Your task to perform on an android device: Search for macbook pro 15 inch on newegg.com, select the first entry, and add it to the cart. Image 0: 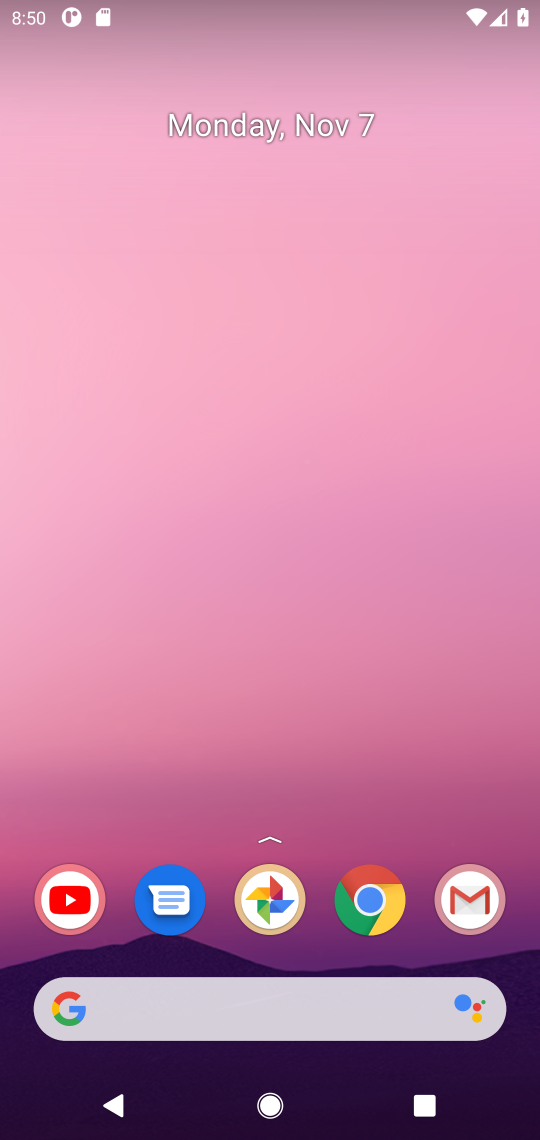
Step 0: drag from (295, 929) to (321, 280)
Your task to perform on an android device: Search for macbook pro 15 inch on newegg.com, select the first entry, and add it to the cart. Image 1: 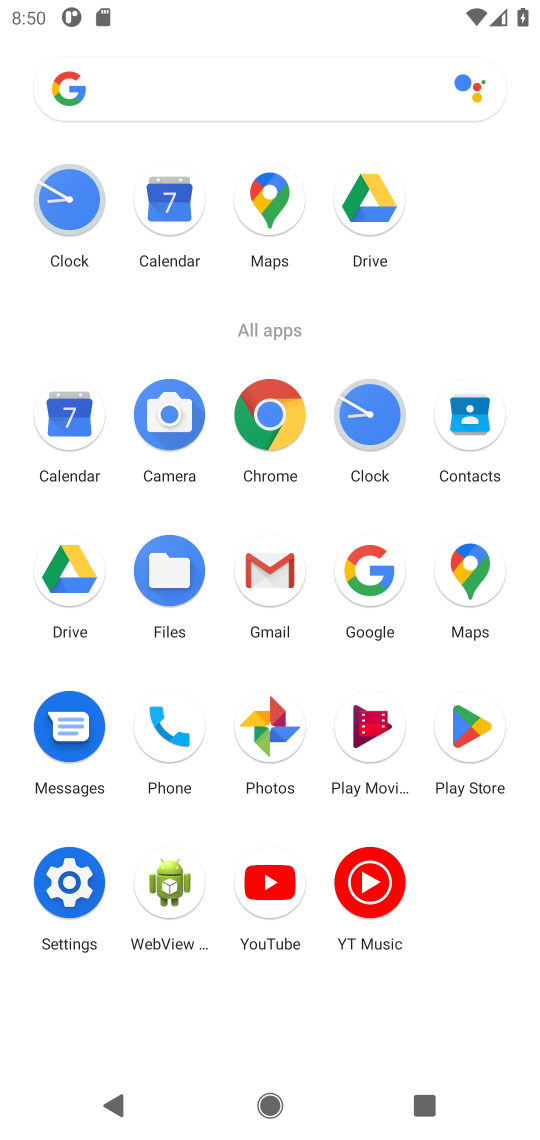
Step 1: click (392, 551)
Your task to perform on an android device: Search for macbook pro 15 inch on newegg.com, select the first entry, and add it to the cart. Image 2: 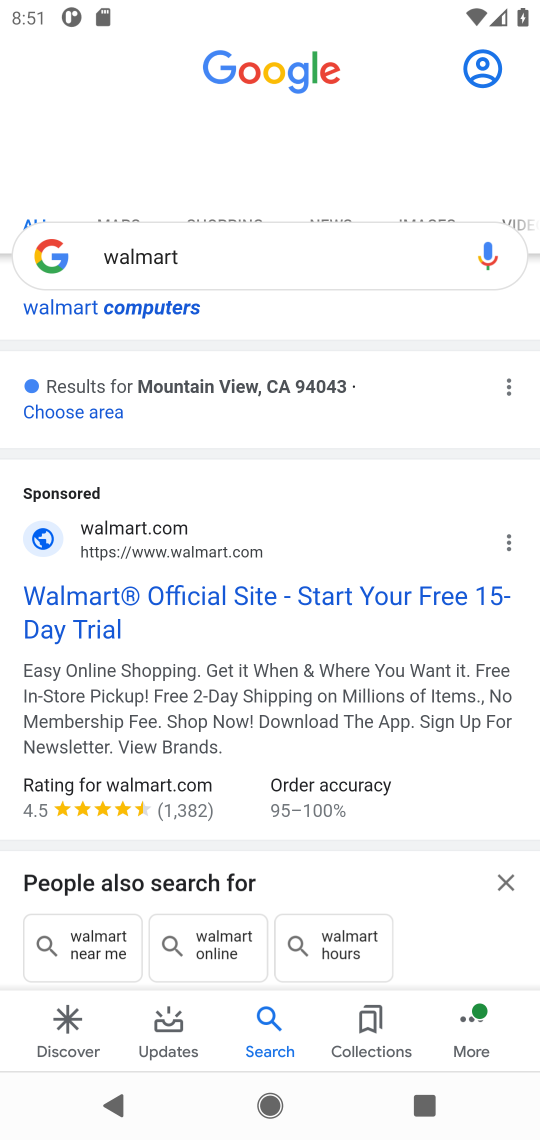
Step 2: click (336, 255)
Your task to perform on an android device: Search for macbook pro 15 inch on newegg.com, select the first entry, and add it to the cart. Image 3: 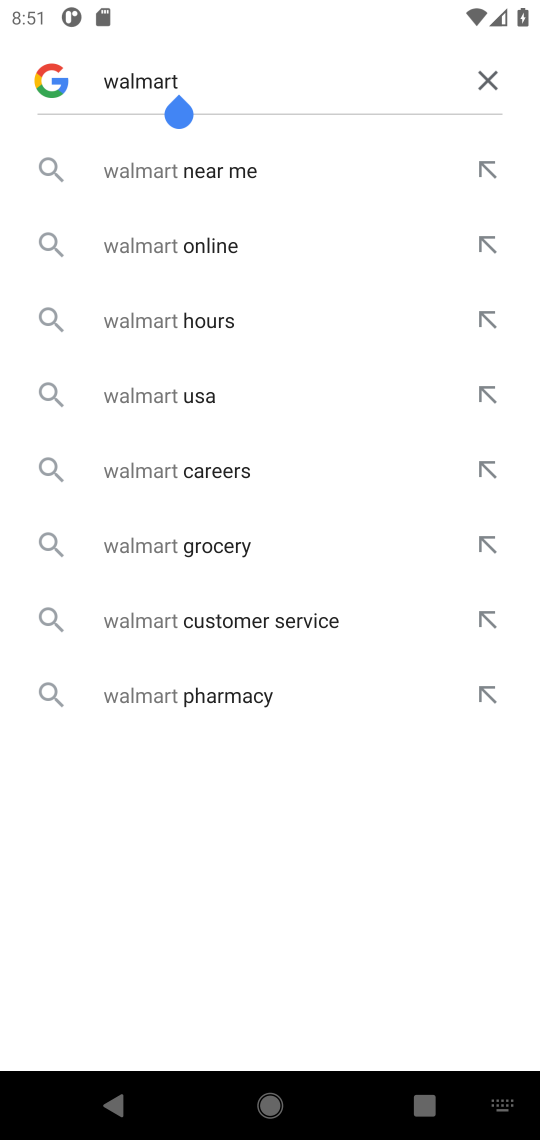
Step 3: click (484, 89)
Your task to perform on an android device: Search for macbook pro 15 inch on newegg.com, select the first entry, and add it to the cart. Image 4: 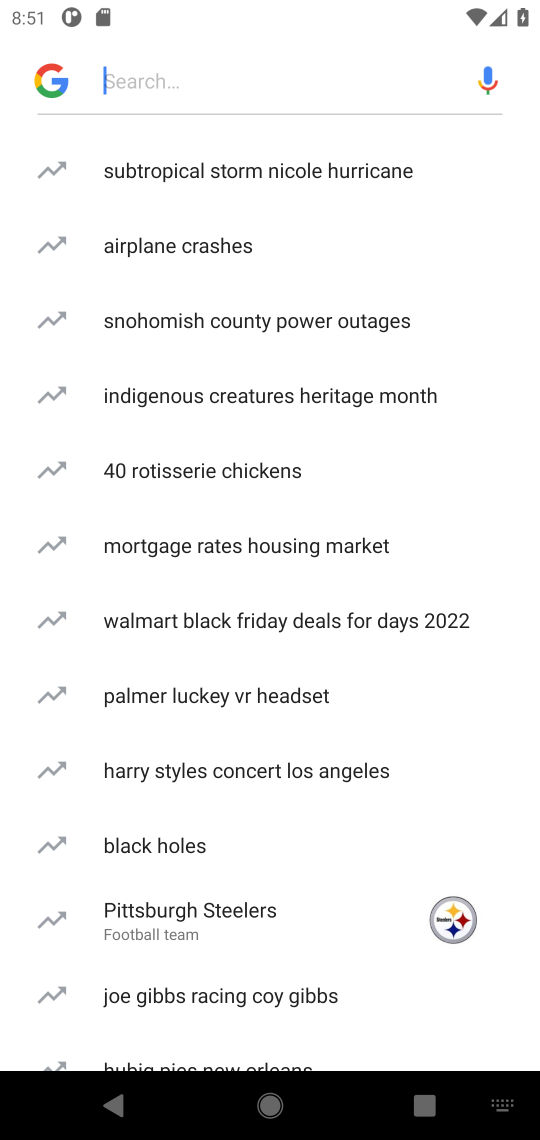
Step 4: type "newegg.com"
Your task to perform on an android device: Search for macbook pro 15 inch on newegg.com, select the first entry, and add it to the cart. Image 5: 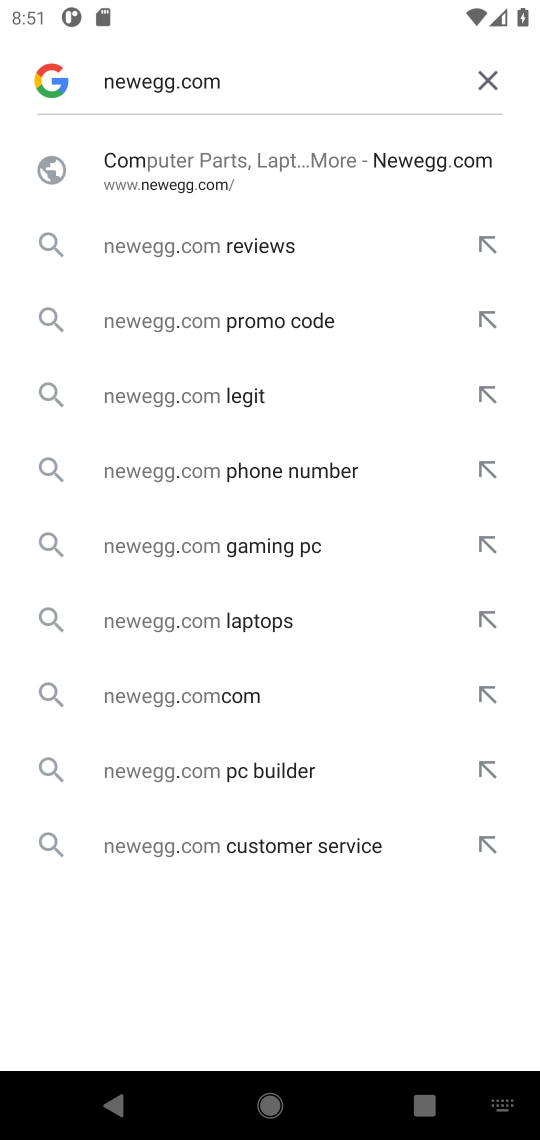
Step 5: click (302, 160)
Your task to perform on an android device: Search for macbook pro 15 inch on newegg.com, select the first entry, and add it to the cart. Image 6: 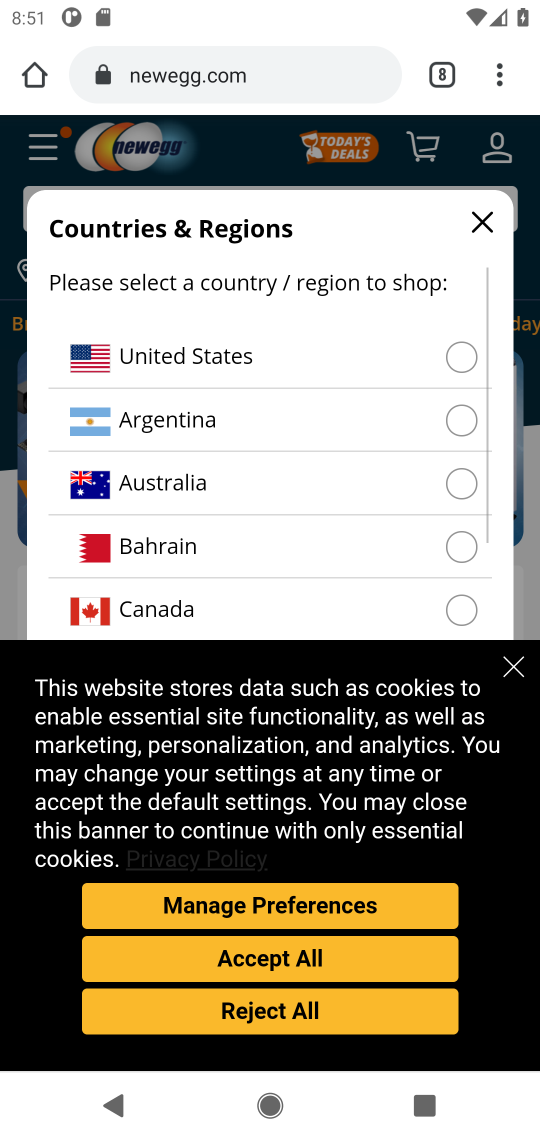
Step 6: click (484, 226)
Your task to perform on an android device: Search for macbook pro 15 inch on newegg.com, select the first entry, and add it to the cart. Image 7: 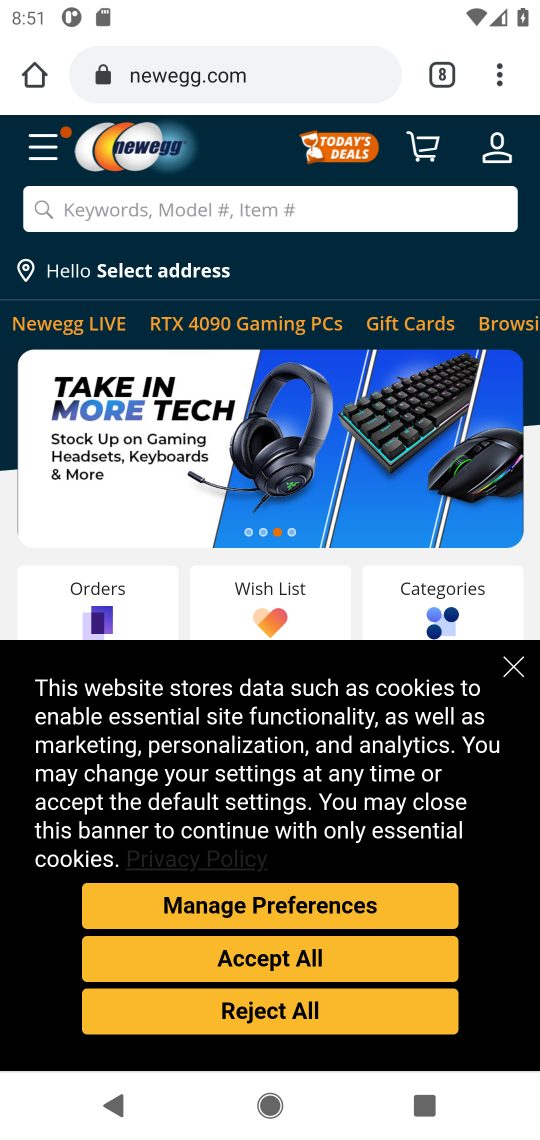
Step 7: click (320, 212)
Your task to perform on an android device: Search for macbook pro 15 inch on newegg.com, select the first entry, and add it to the cart. Image 8: 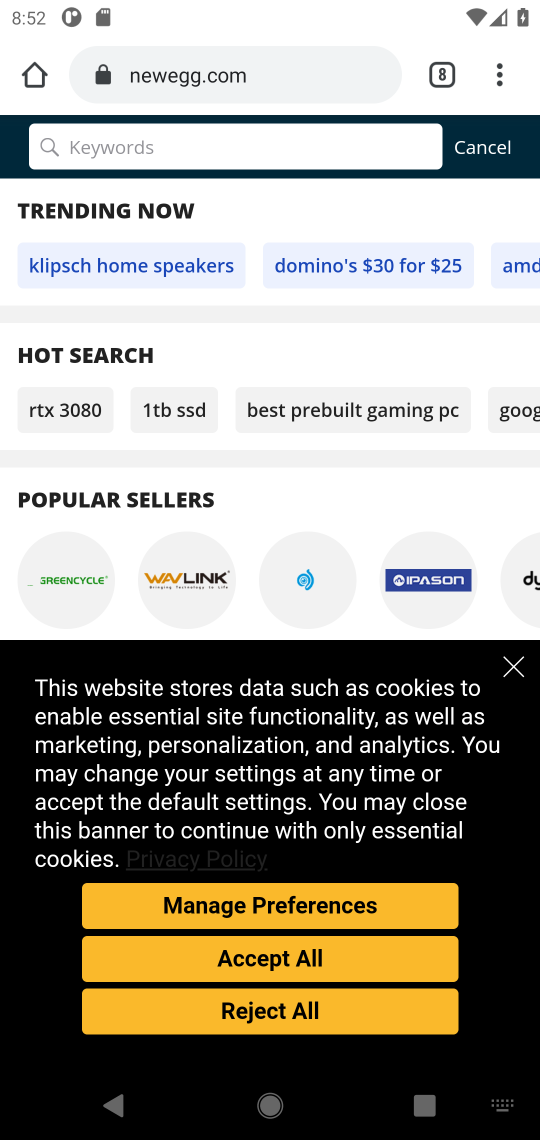
Step 8: type "macbook pro 15 inch"
Your task to perform on an android device: Search for macbook pro 15 inch on newegg.com, select the first entry, and add it to the cart. Image 9: 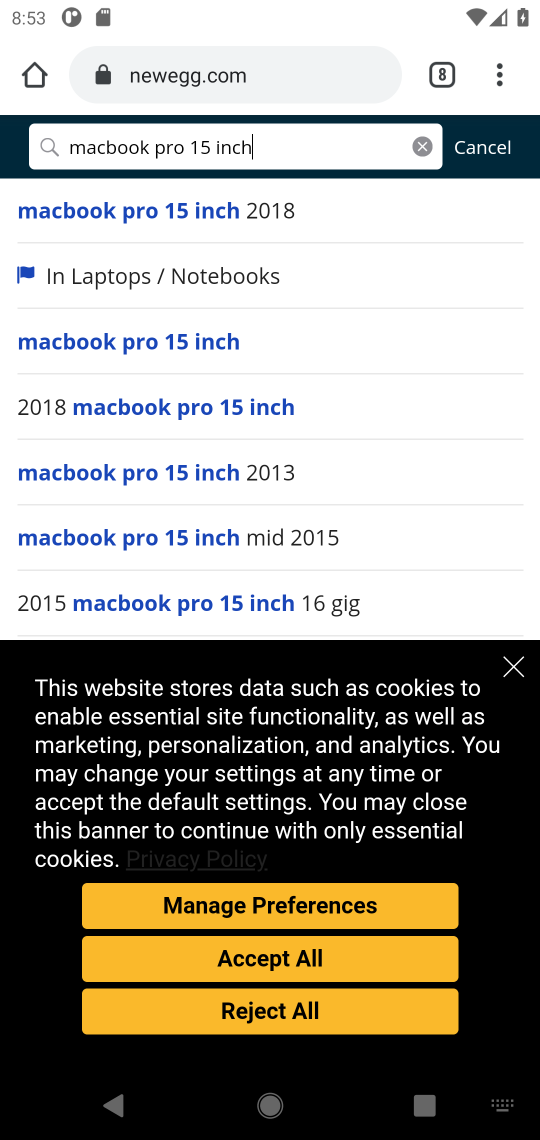
Step 9: click (193, 211)
Your task to perform on an android device: Search for macbook pro 15 inch on newegg.com, select the first entry, and add it to the cart. Image 10: 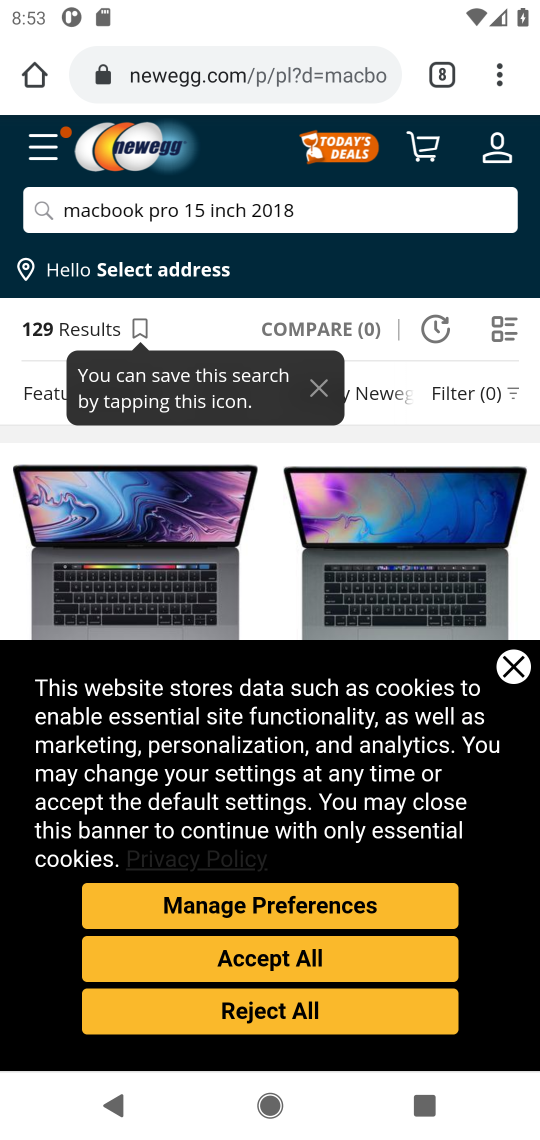
Step 10: click (522, 672)
Your task to perform on an android device: Search for macbook pro 15 inch on newegg.com, select the first entry, and add it to the cart. Image 11: 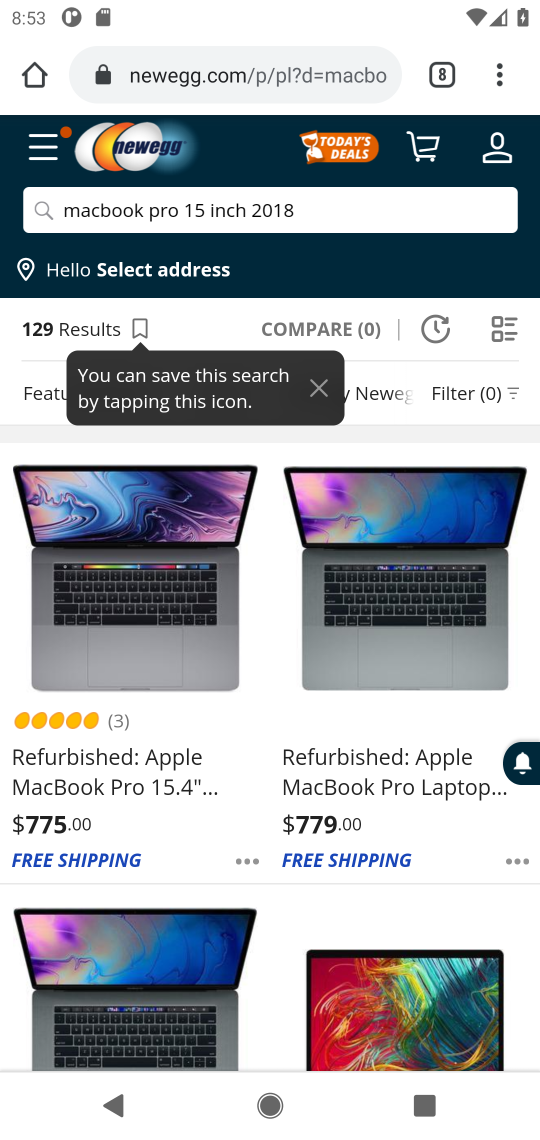
Step 11: click (73, 537)
Your task to perform on an android device: Search for macbook pro 15 inch on newegg.com, select the first entry, and add it to the cart. Image 12: 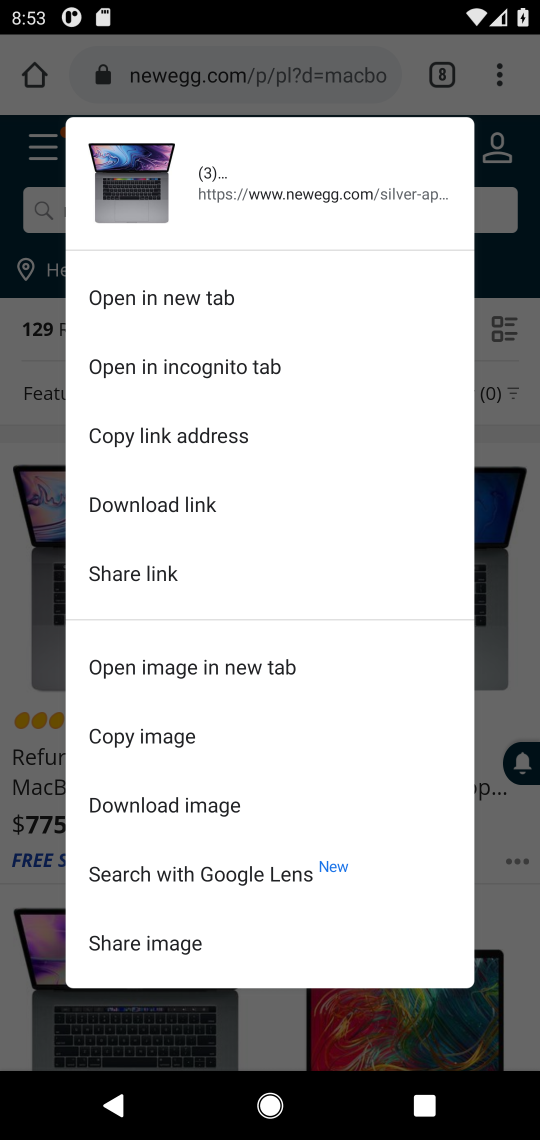
Step 12: click (37, 384)
Your task to perform on an android device: Search for macbook pro 15 inch on newegg.com, select the first entry, and add it to the cart. Image 13: 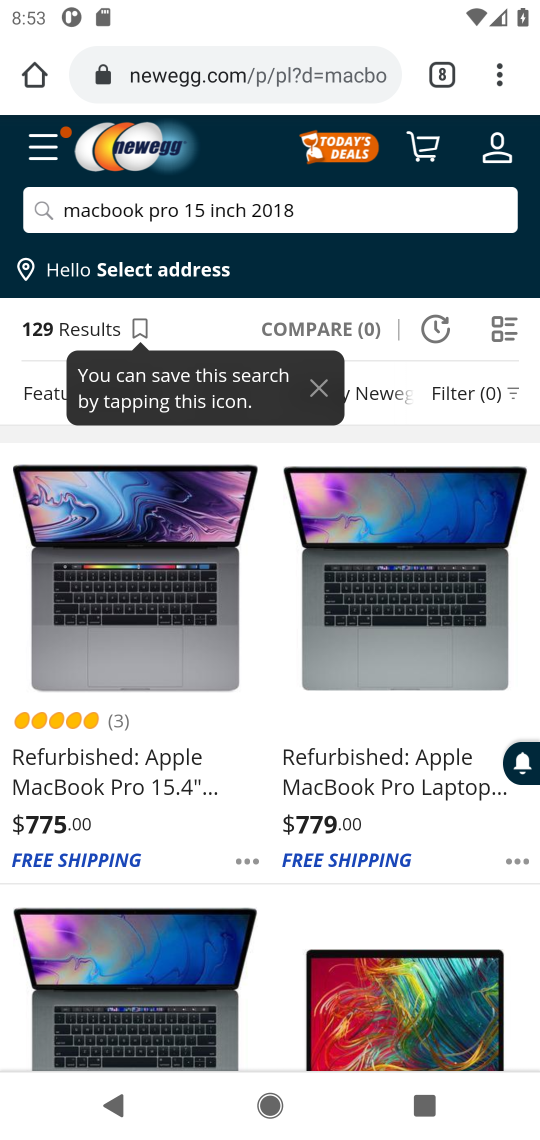
Step 13: click (203, 640)
Your task to perform on an android device: Search for macbook pro 15 inch on newegg.com, select the first entry, and add it to the cart. Image 14: 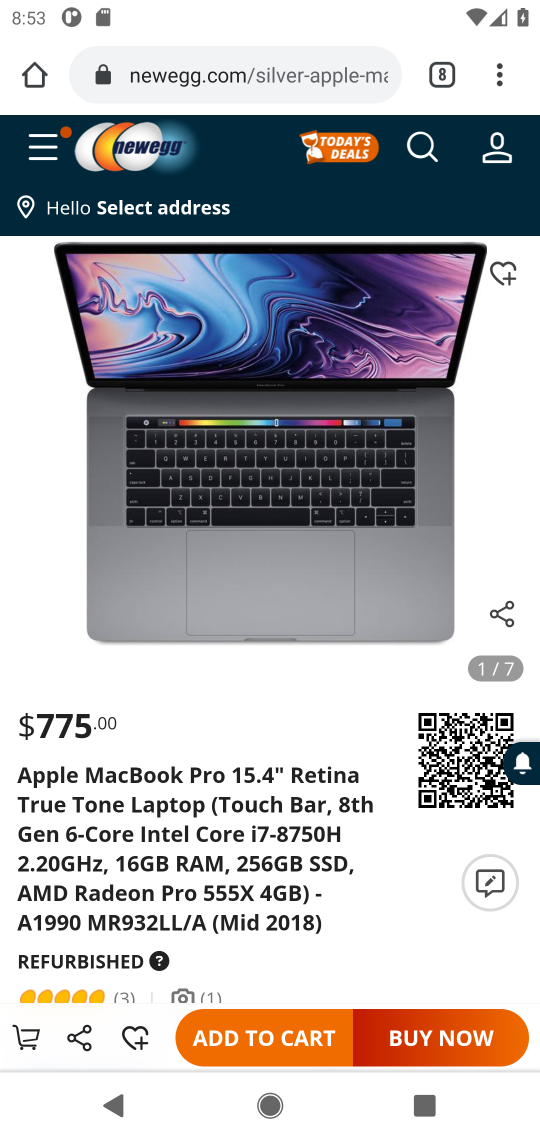
Step 14: click (203, 640)
Your task to perform on an android device: Search for macbook pro 15 inch on newegg.com, select the first entry, and add it to the cart. Image 15: 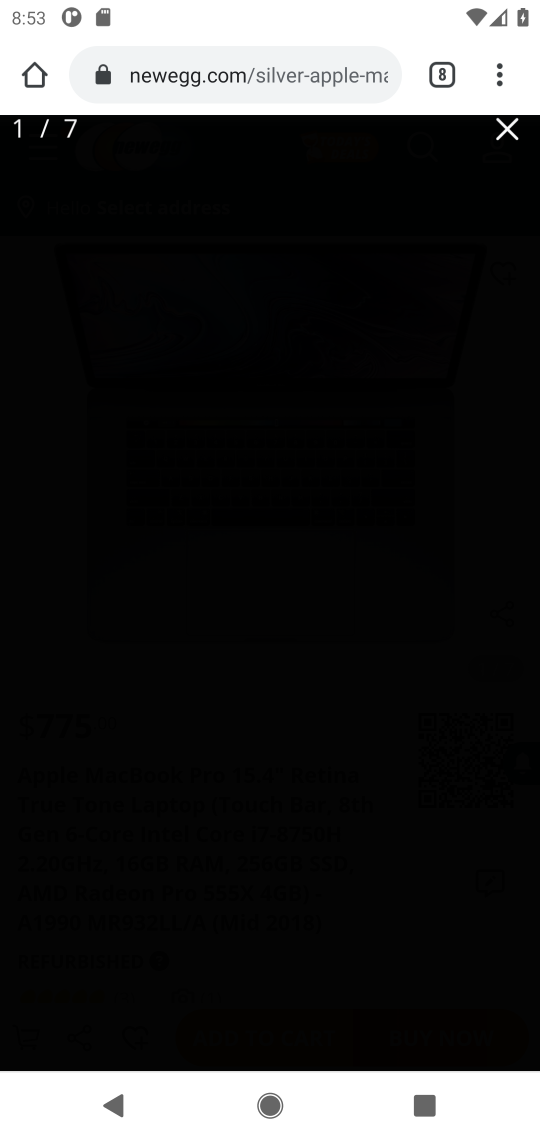
Step 15: drag from (248, 757) to (343, 361)
Your task to perform on an android device: Search for macbook pro 15 inch on newegg.com, select the first entry, and add it to the cart. Image 16: 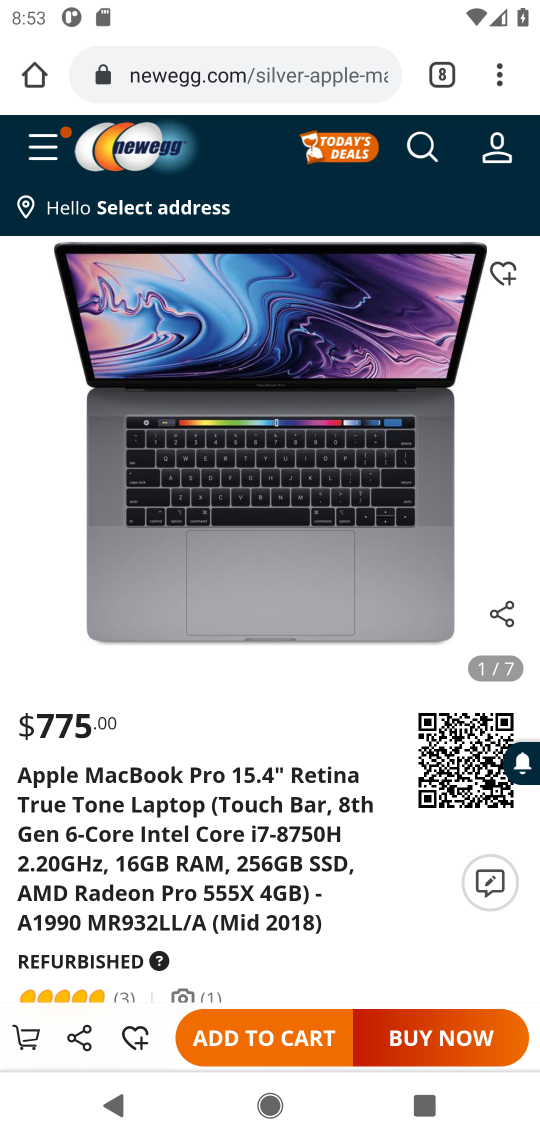
Step 16: click (281, 1030)
Your task to perform on an android device: Search for macbook pro 15 inch on newegg.com, select the first entry, and add it to the cart. Image 17: 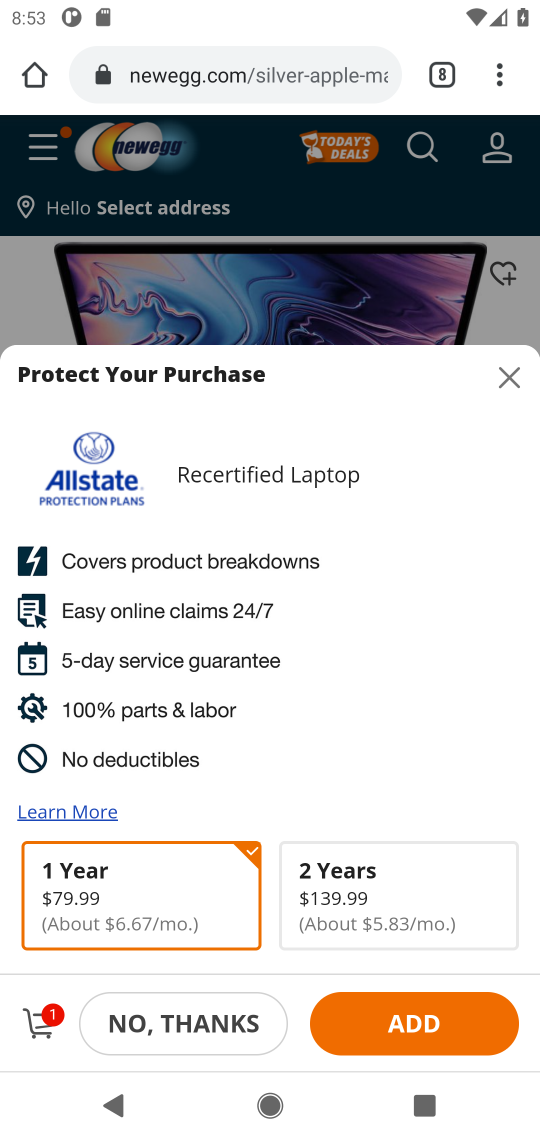
Step 17: task complete